Your task to perform on an android device: Open accessibility settings Image 0: 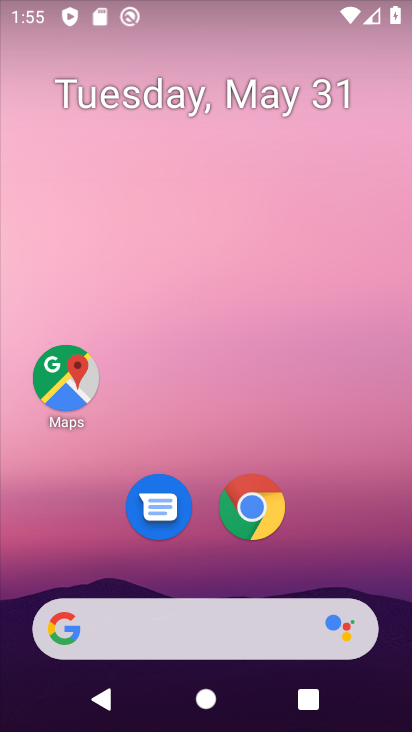
Step 0: drag from (211, 562) to (191, 4)
Your task to perform on an android device: Open accessibility settings Image 1: 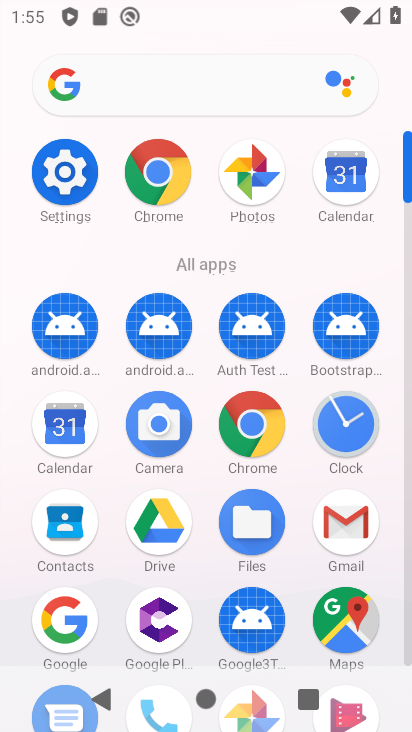
Step 1: click (73, 165)
Your task to perform on an android device: Open accessibility settings Image 2: 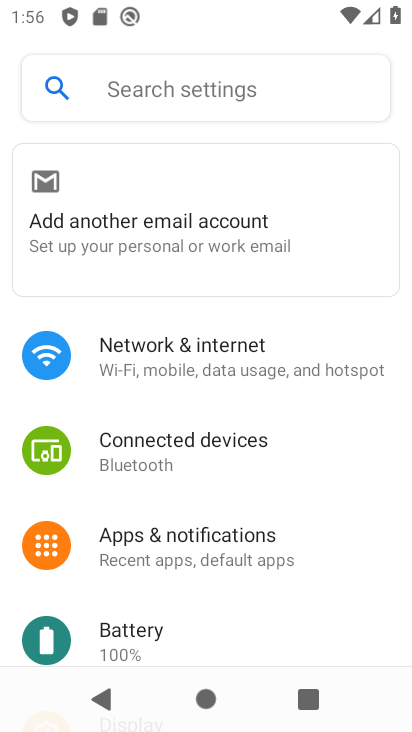
Step 2: drag from (151, 524) to (184, 92)
Your task to perform on an android device: Open accessibility settings Image 3: 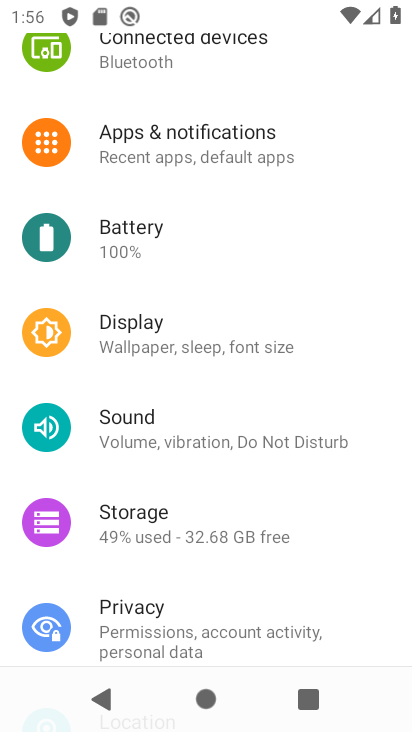
Step 3: drag from (152, 585) to (110, 90)
Your task to perform on an android device: Open accessibility settings Image 4: 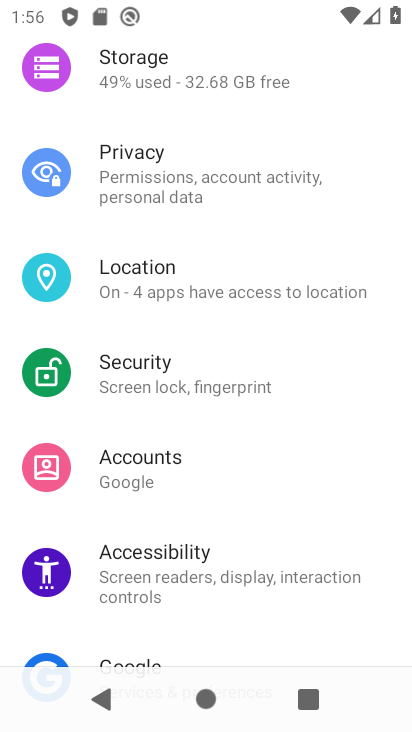
Step 4: click (116, 579)
Your task to perform on an android device: Open accessibility settings Image 5: 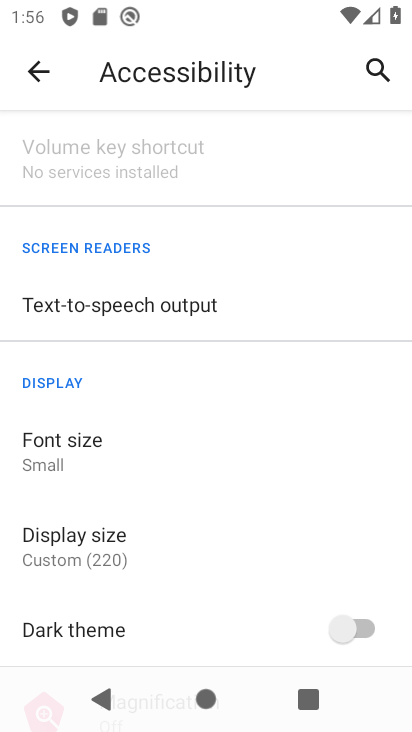
Step 5: task complete